Your task to perform on an android device: create a new album in the google photos Image 0: 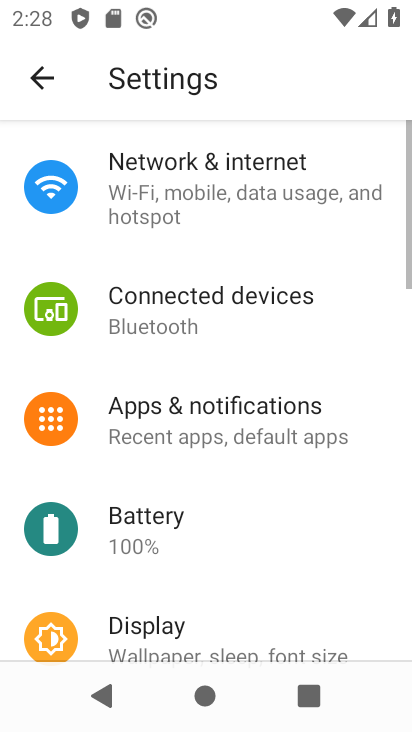
Step 0: press back button
Your task to perform on an android device: create a new album in the google photos Image 1: 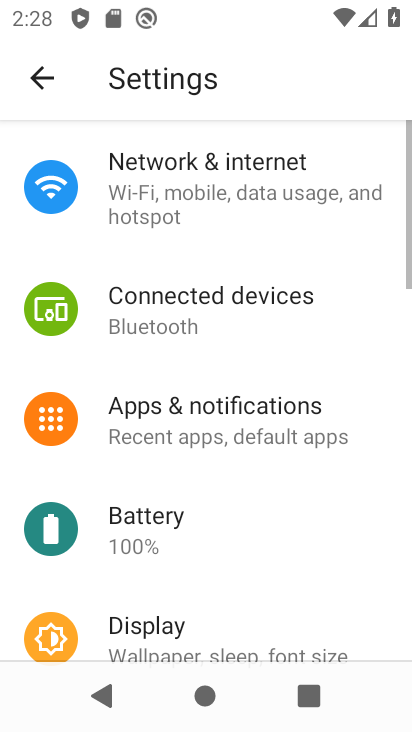
Step 1: press back button
Your task to perform on an android device: create a new album in the google photos Image 2: 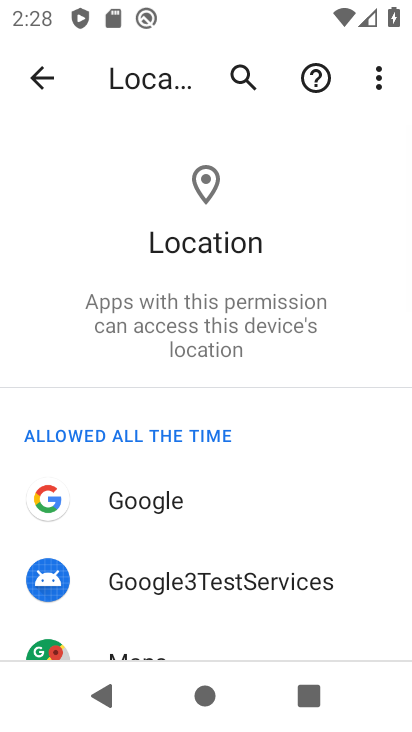
Step 2: press back button
Your task to perform on an android device: create a new album in the google photos Image 3: 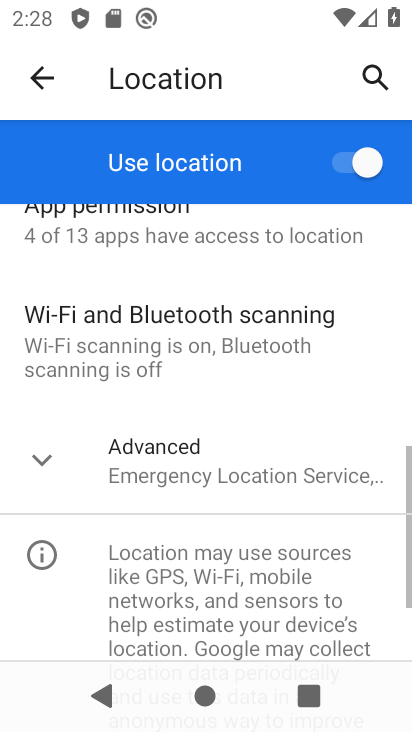
Step 3: press back button
Your task to perform on an android device: create a new album in the google photos Image 4: 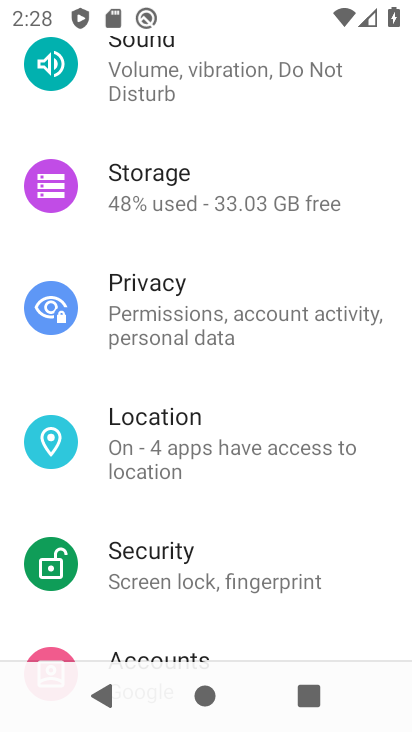
Step 4: press back button
Your task to perform on an android device: create a new album in the google photos Image 5: 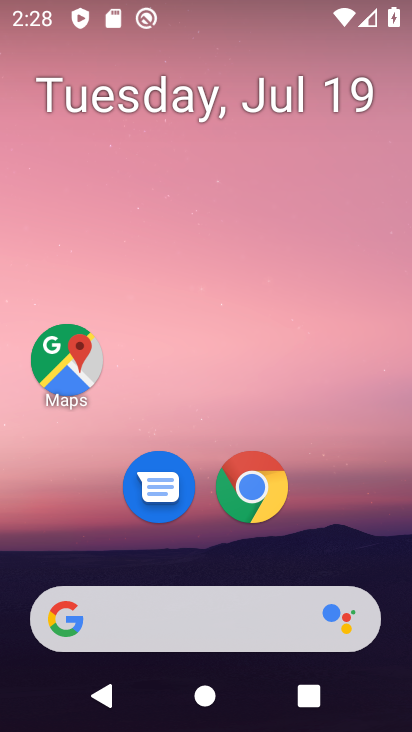
Step 5: drag from (224, 574) to (377, 26)
Your task to perform on an android device: create a new album in the google photos Image 6: 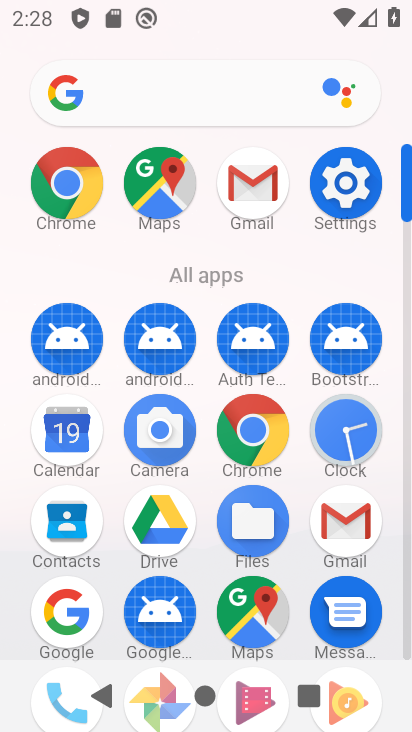
Step 6: drag from (176, 597) to (289, 168)
Your task to perform on an android device: create a new album in the google photos Image 7: 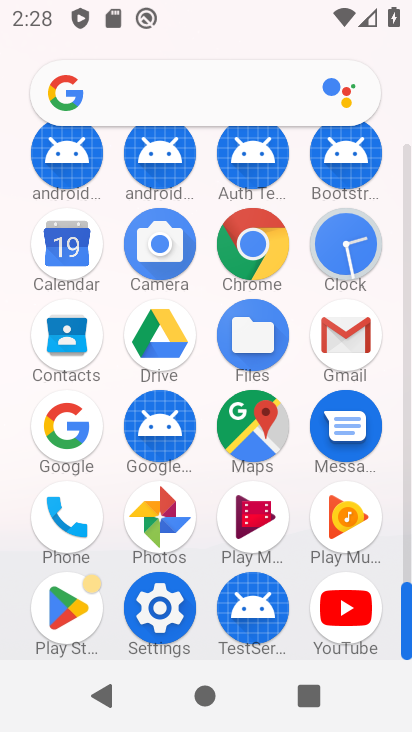
Step 7: click (143, 524)
Your task to perform on an android device: create a new album in the google photos Image 8: 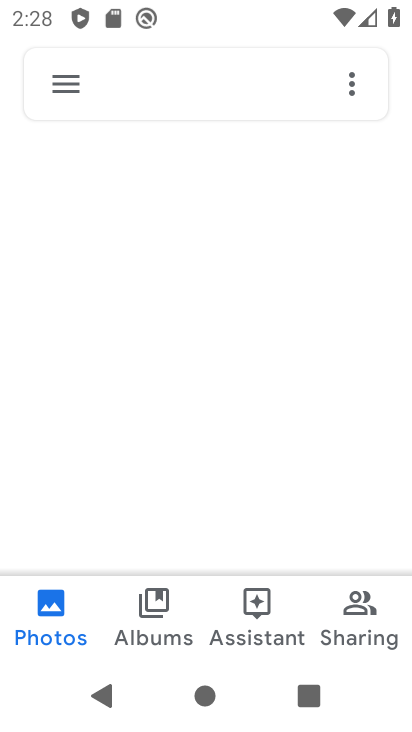
Step 8: click (139, 600)
Your task to perform on an android device: create a new album in the google photos Image 9: 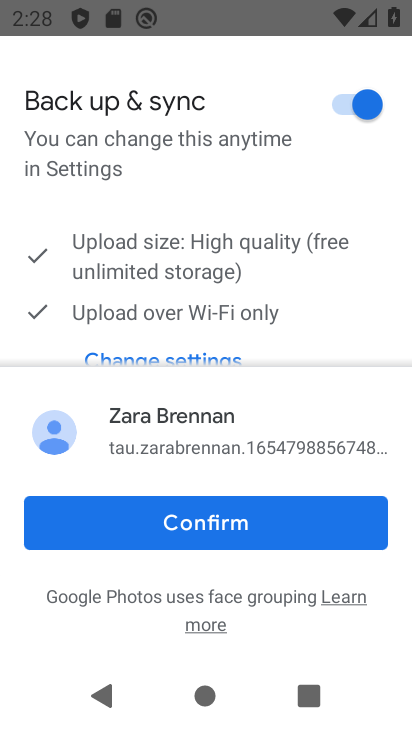
Step 9: click (182, 537)
Your task to perform on an android device: create a new album in the google photos Image 10: 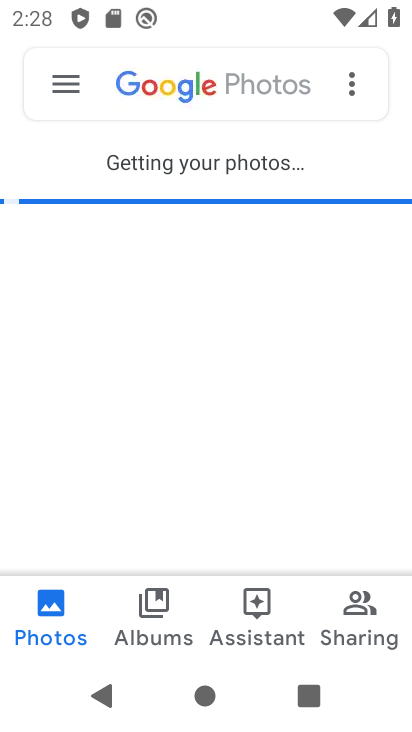
Step 10: click (166, 606)
Your task to perform on an android device: create a new album in the google photos Image 11: 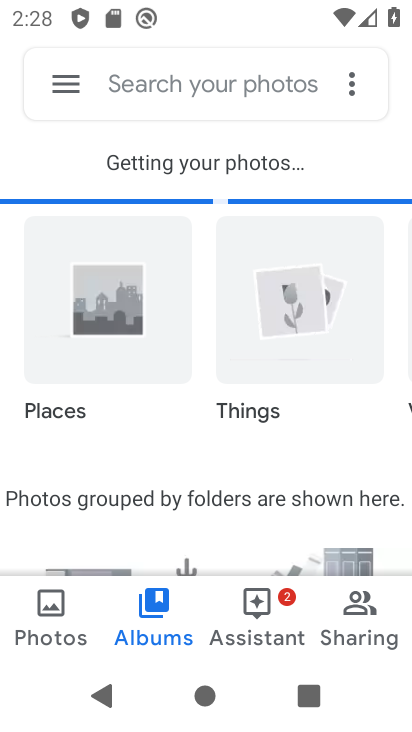
Step 11: drag from (199, 561) to (352, 63)
Your task to perform on an android device: create a new album in the google photos Image 12: 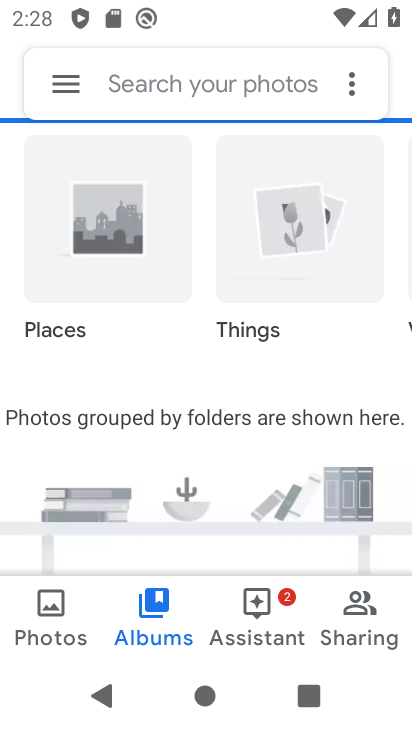
Step 12: drag from (342, 112) to (211, 601)
Your task to perform on an android device: create a new album in the google photos Image 13: 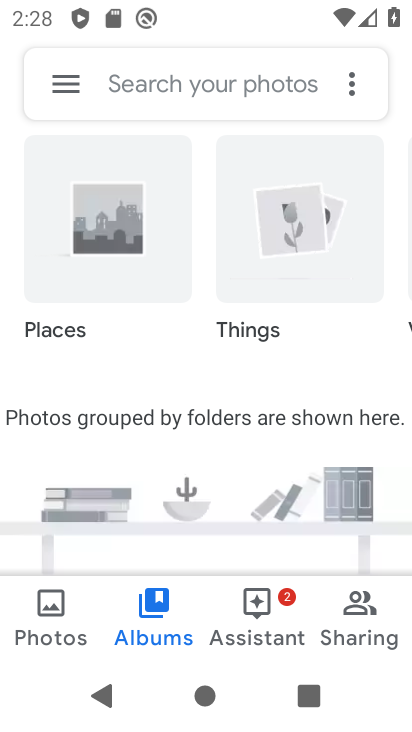
Step 13: click (348, 79)
Your task to perform on an android device: create a new album in the google photos Image 14: 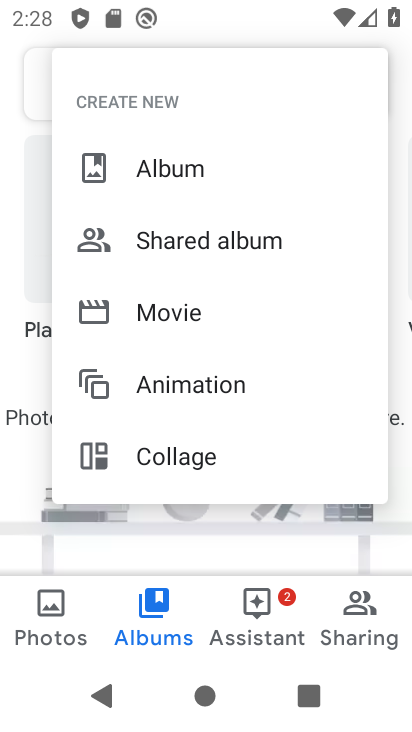
Step 14: click (169, 166)
Your task to perform on an android device: create a new album in the google photos Image 15: 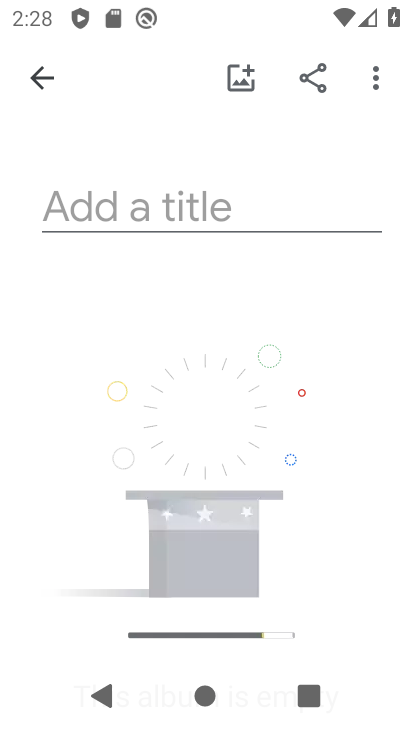
Step 15: click (146, 204)
Your task to perform on an android device: create a new album in the google photos Image 16: 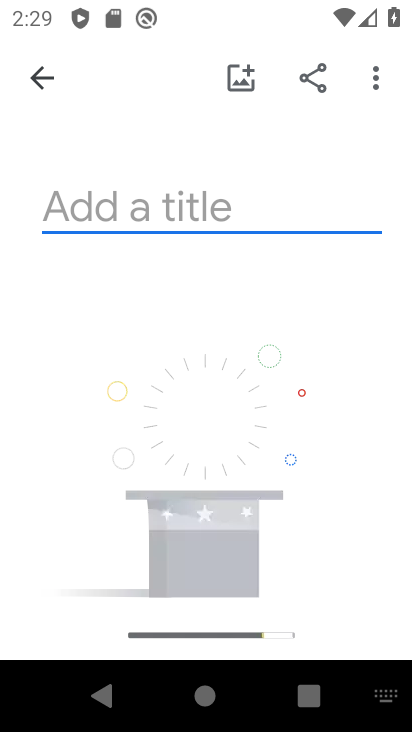
Step 16: type "ghhv"
Your task to perform on an android device: create a new album in the google photos Image 17: 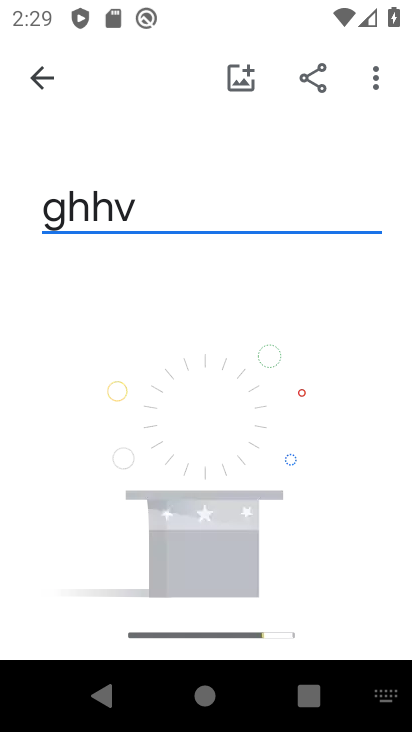
Step 17: drag from (275, 580) to (371, 94)
Your task to perform on an android device: create a new album in the google photos Image 18: 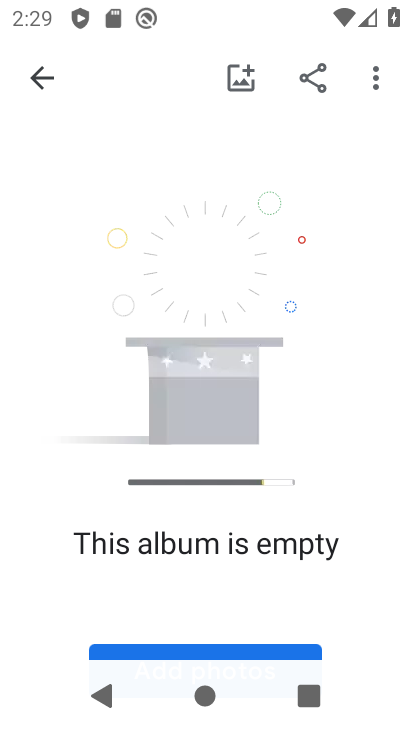
Step 18: drag from (158, 593) to (261, 86)
Your task to perform on an android device: create a new album in the google photos Image 19: 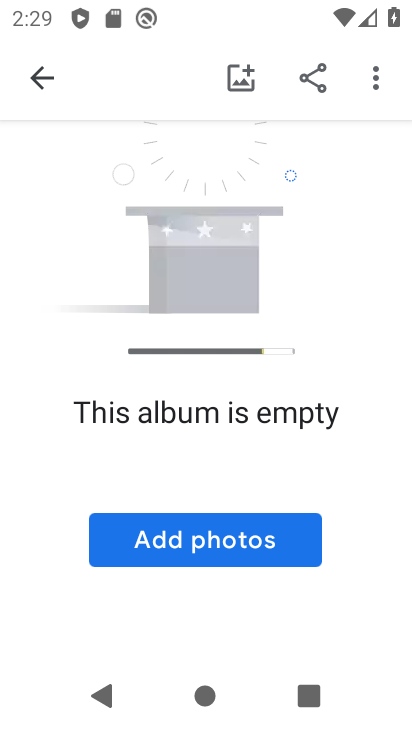
Step 19: click (149, 550)
Your task to perform on an android device: create a new album in the google photos Image 20: 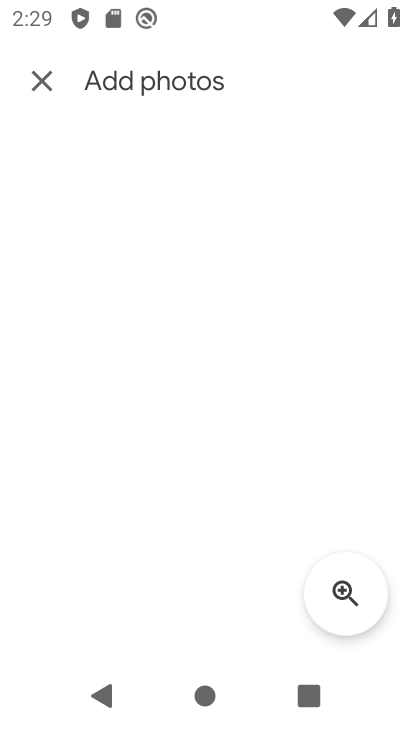
Step 20: task complete